Your task to perform on an android device: Open Amazon Image 0: 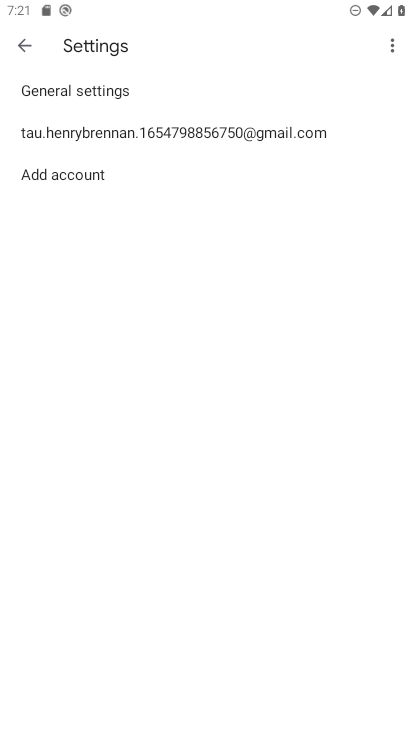
Step 0: press home button
Your task to perform on an android device: Open Amazon Image 1: 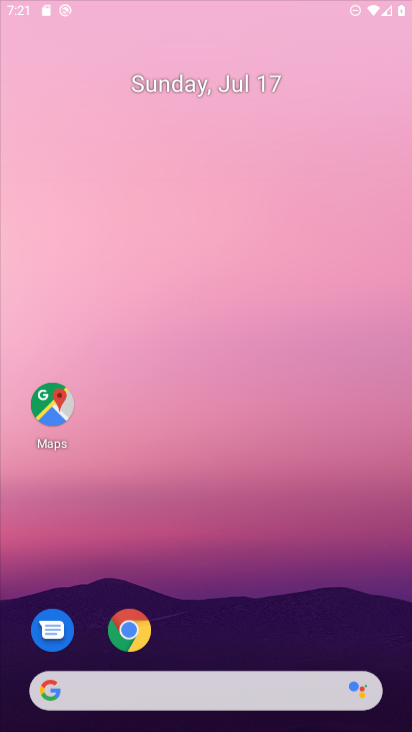
Step 1: drag from (374, 657) to (267, 40)
Your task to perform on an android device: Open Amazon Image 2: 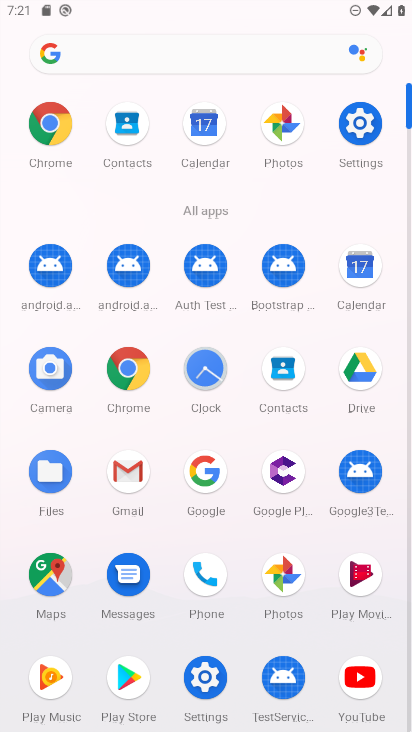
Step 2: click (192, 472)
Your task to perform on an android device: Open Amazon Image 3: 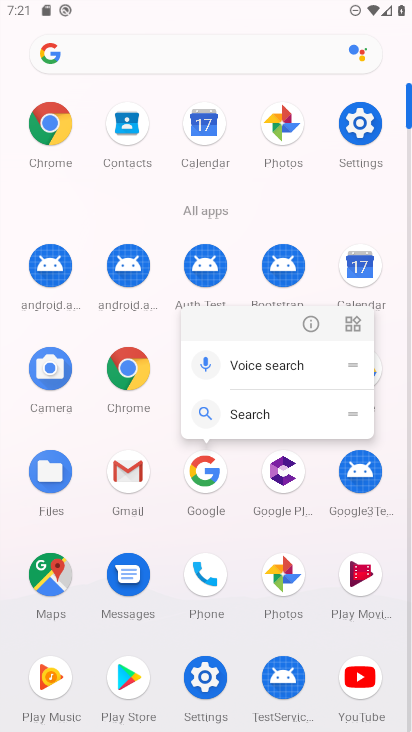
Step 3: click (205, 477)
Your task to perform on an android device: Open Amazon Image 4: 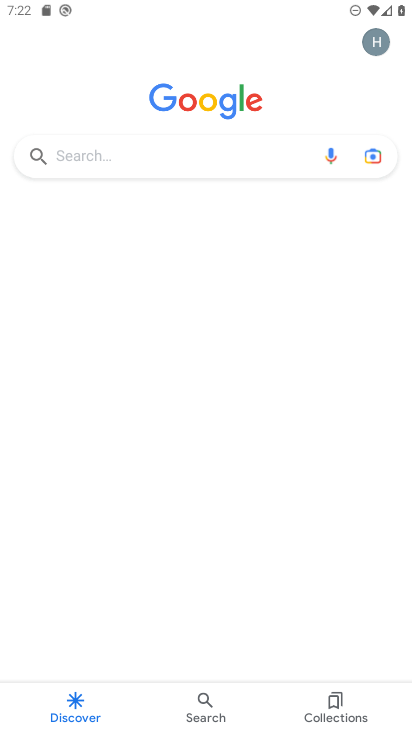
Step 4: click (125, 164)
Your task to perform on an android device: Open Amazon Image 5: 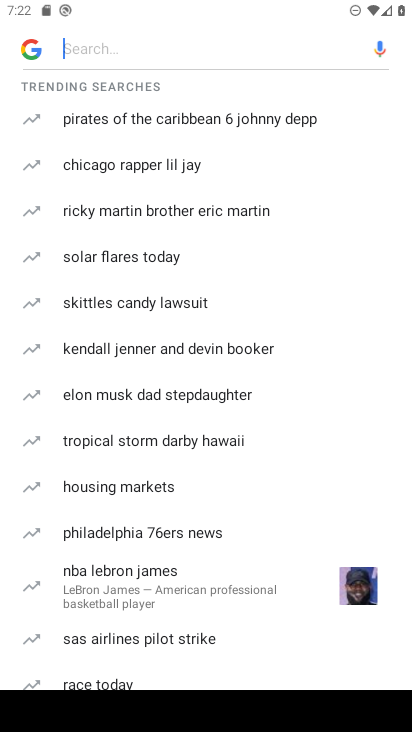
Step 5: type "Amazon"
Your task to perform on an android device: Open Amazon Image 6: 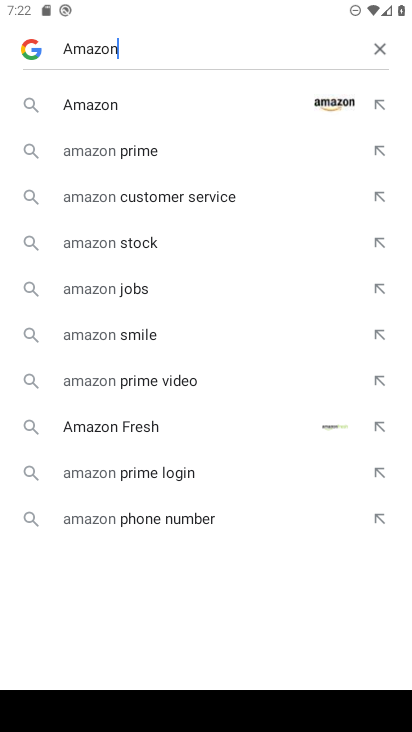
Step 6: click (115, 106)
Your task to perform on an android device: Open Amazon Image 7: 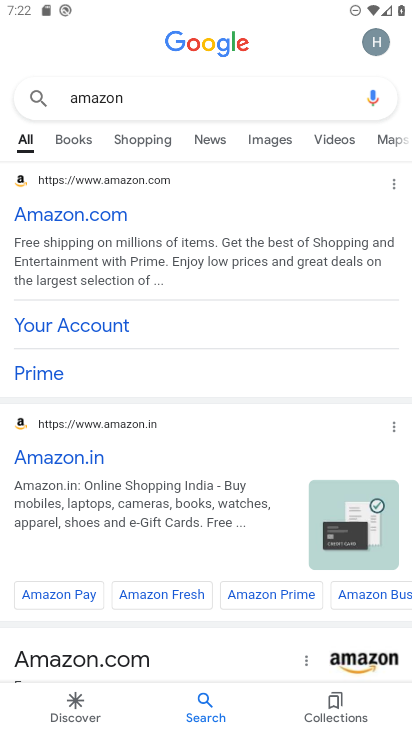
Step 7: task complete